Your task to perform on an android device: open app "Spotify: Music and Podcasts" (install if not already installed) Image 0: 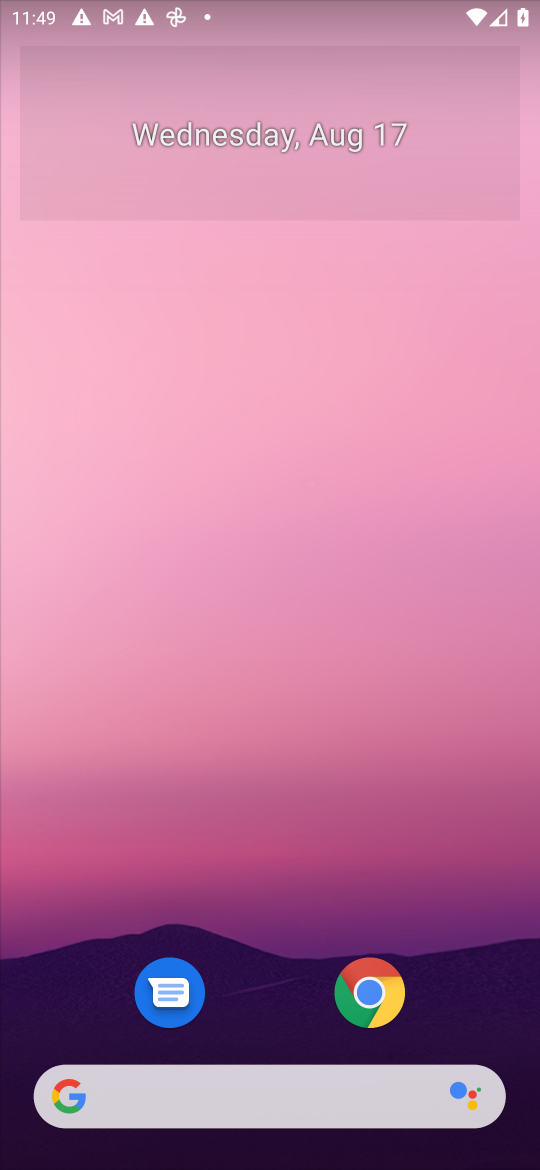
Step 0: drag from (471, 939) to (188, 14)
Your task to perform on an android device: open app "Spotify: Music and Podcasts" (install if not already installed) Image 1: 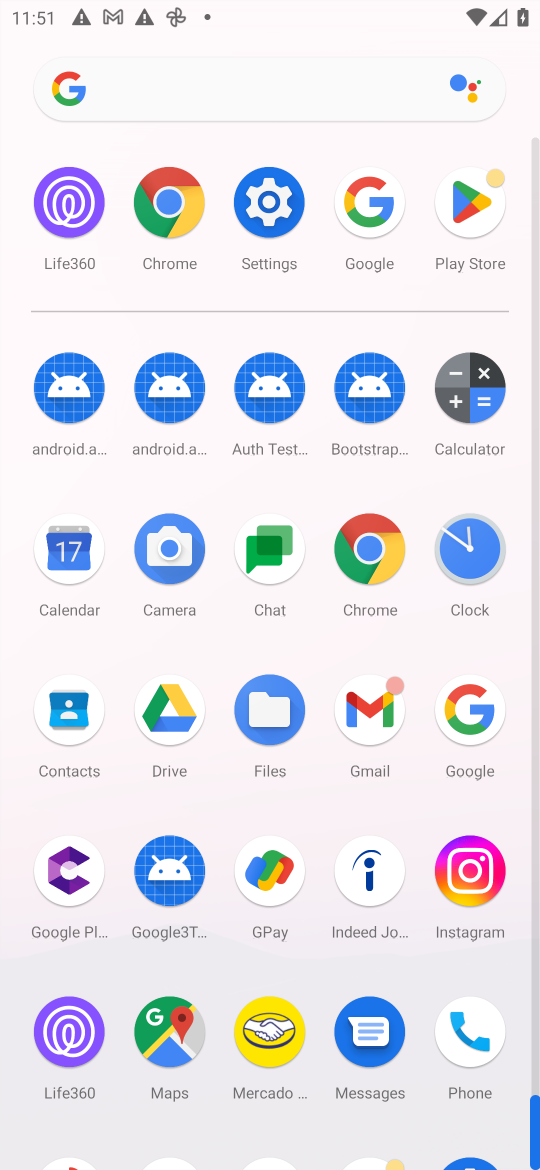
Step 1: click (487, 211)
Your task to perform on an android device: open app "Spotify: Music and Podcasts" (install if not already installed) Image 2: 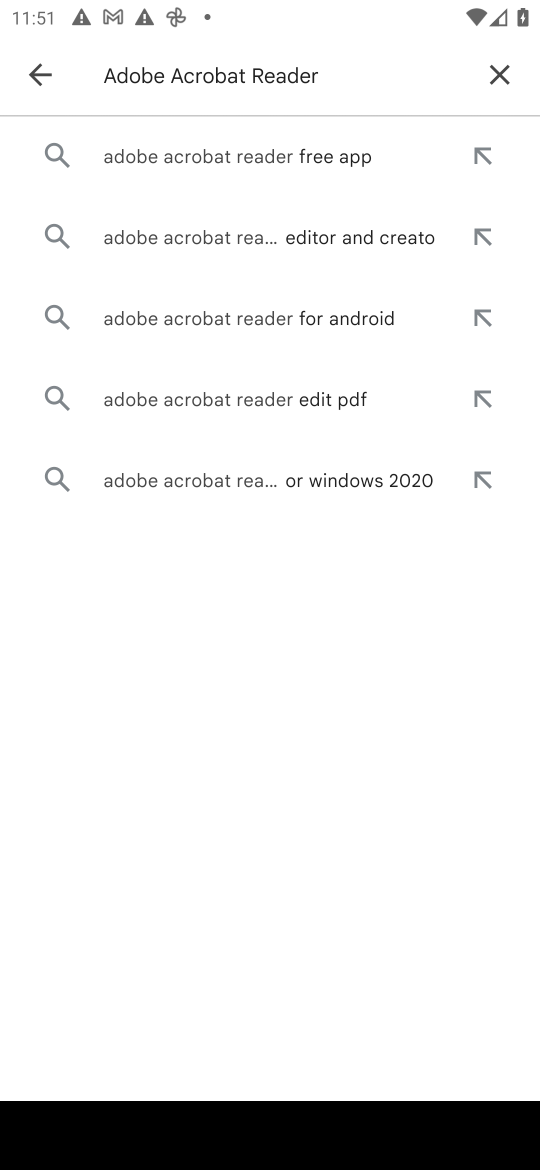
Step 2: click (490, 77)
Your task to perform on an android device: open app "Spotify: Music and Podcasts" (install if not already installed) Image 3: 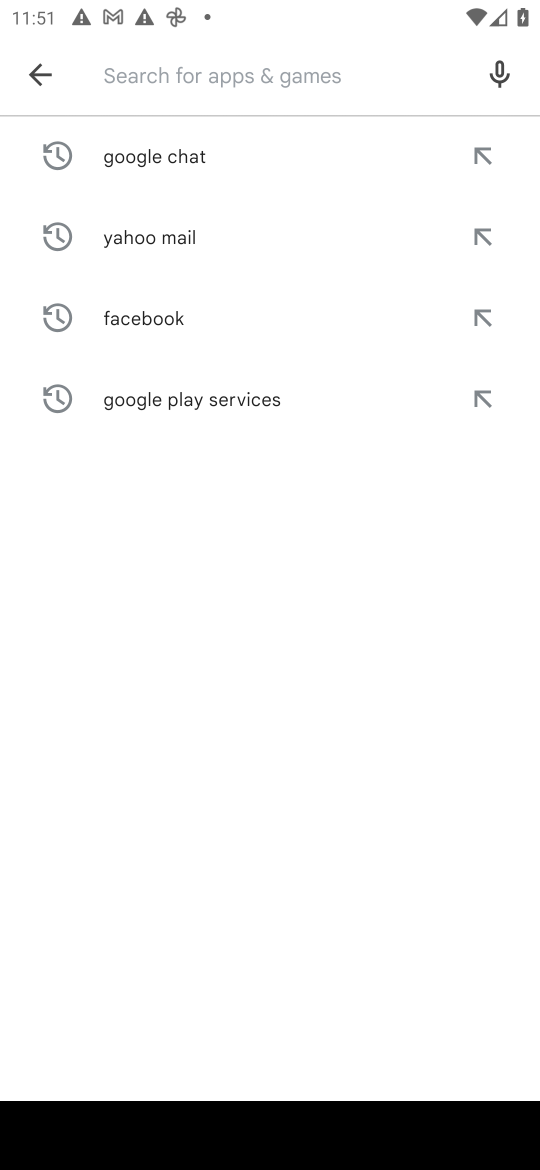
Step 3: type "Spotify: Music and Podcasts"
Your task to perform on an android device: open app "Spotify: Music and Podcasts" (install if not already installed) Image 4: 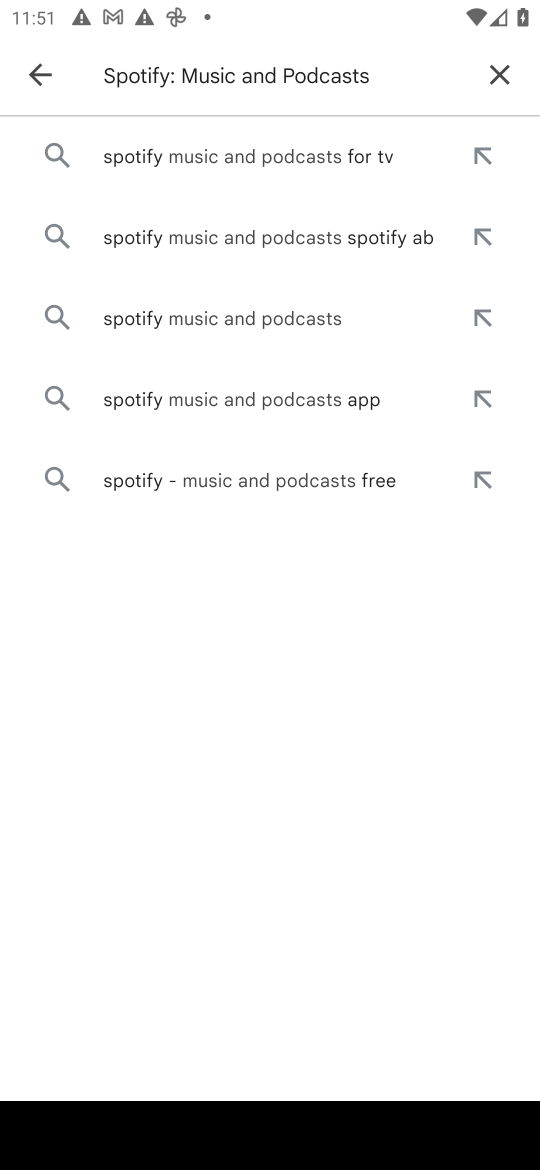
Step 4: task complete